Your task to perform on an android device: Open CNN.com Image 0: 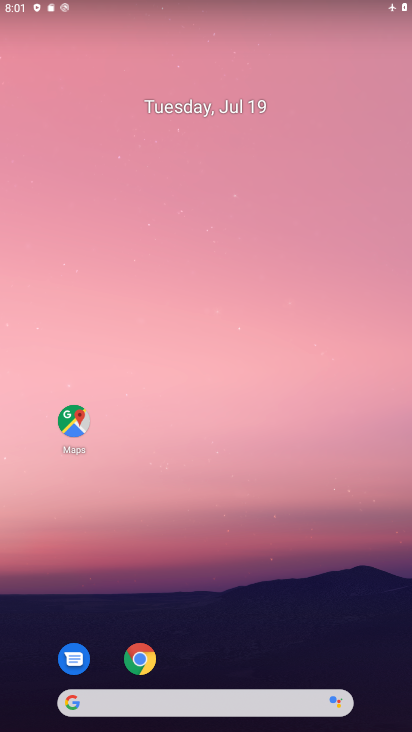
Step 0: click (149, 667)
Your task to perform on an android device: Open CNN.com Image 1: 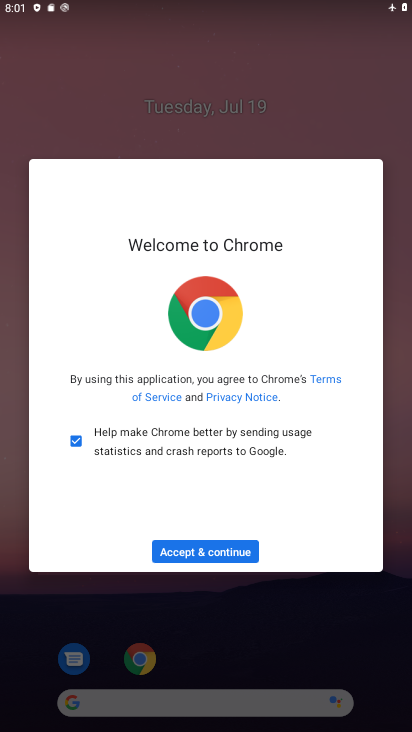
Step 1: click (149, 667)
Your task to perform on an android device: Open CNN.com Image 2: 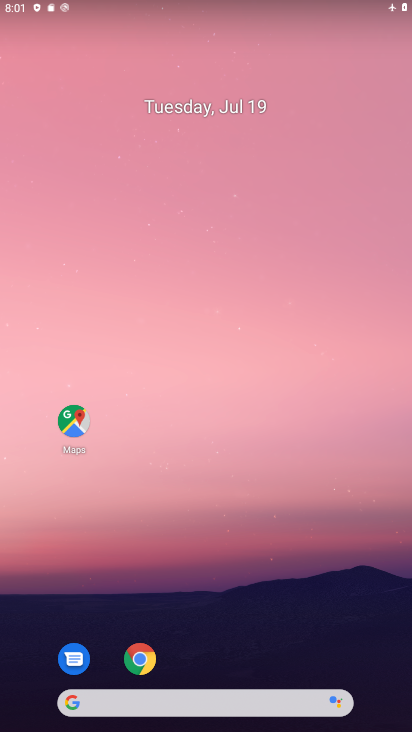
Step 2: click (140, 671)
Your task to perform on an android device: Open CNN.com Image 3: 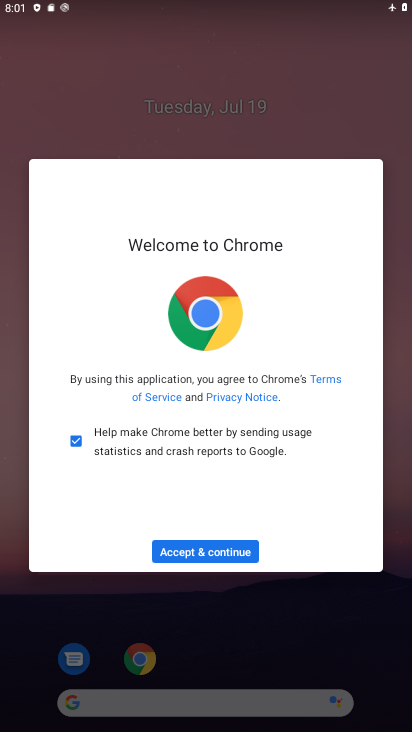
Step 3: click (191, 547)
Your task to perform on an android device: Open CNN.com Image 4: 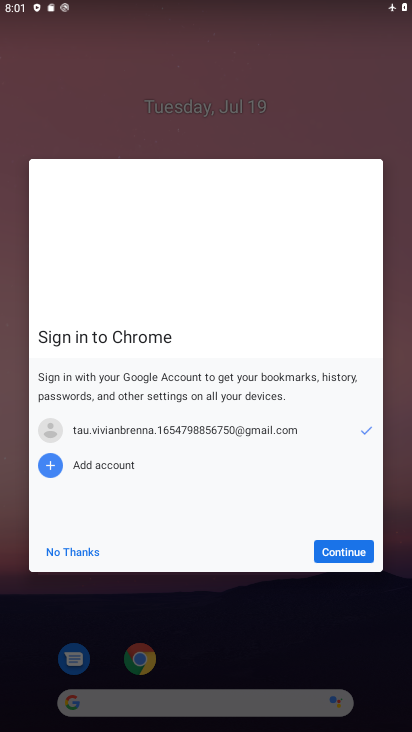
Step 4: click (312, 552)
Your task to perform on an android device: Open CNN.com Image 5: 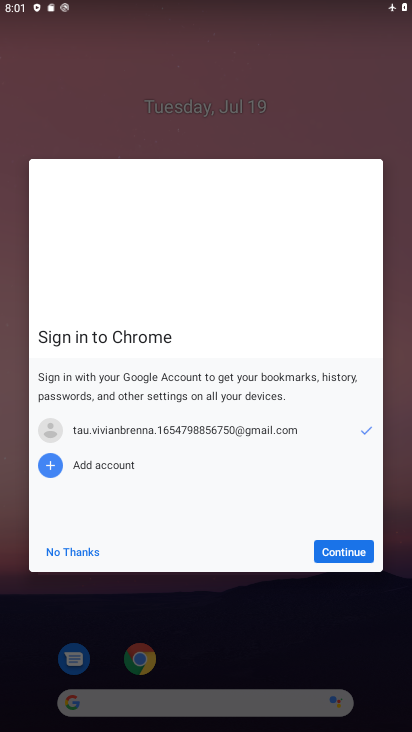
Step 5: click (337, 544)
Your task to perform on an android device: Open CNN.com Image 6: 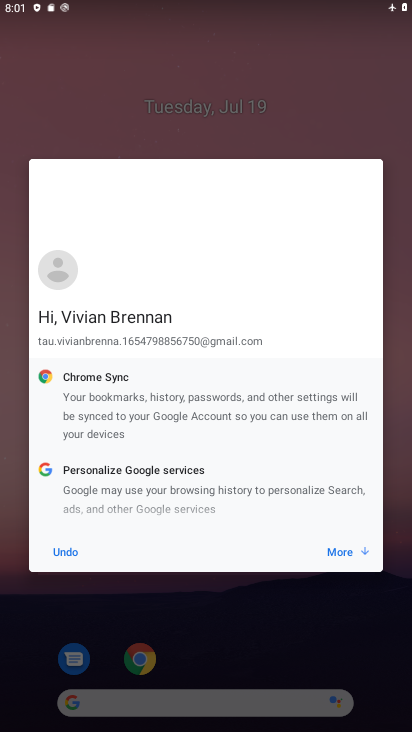
Step 6: click (337, 544)
Your task to perform on an android device: Open CNN.com Image 7: 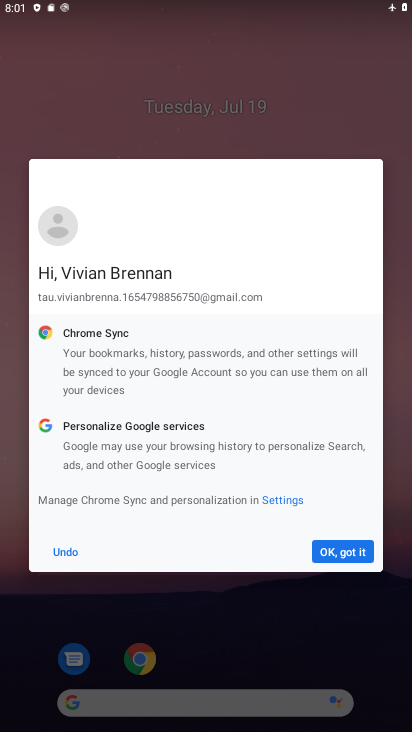
Step 7: click (337, 544)
Your task to perform on an android device: Open CNN.com Image 8: 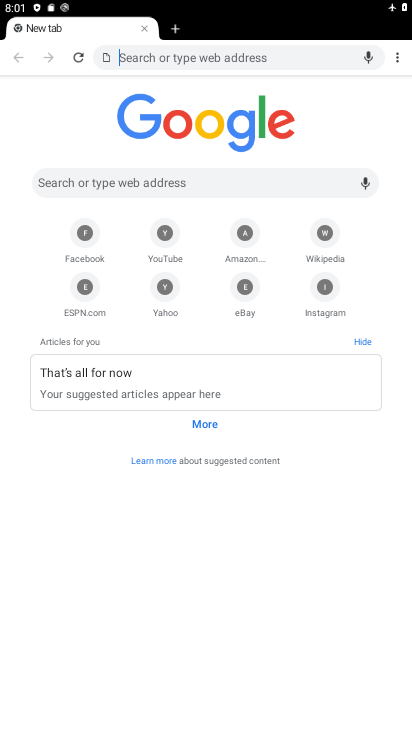
Step 8: click (197, 184)
Your task to perform on an android device: Open CNN.com Image 9: 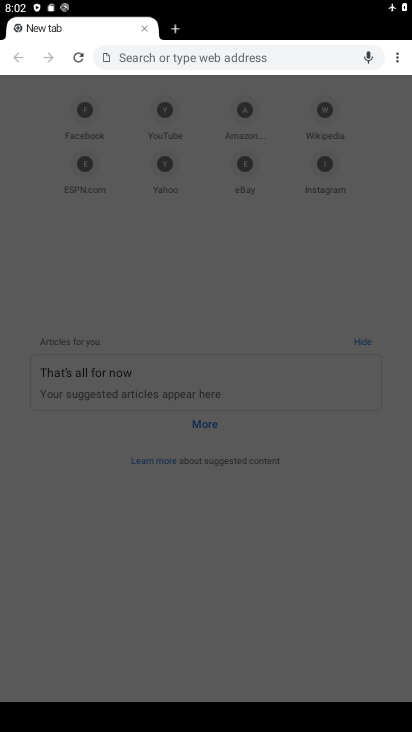
Step 9: type "cnn.com"
Your task to perform on an android device: Open CNN.com Image 10: 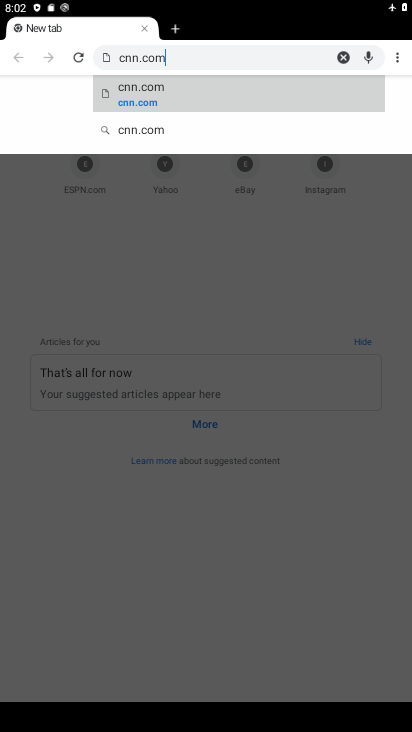
Step 10: click (197, 131)
Your task to perform on an android device: Open CNN.com Image 11: 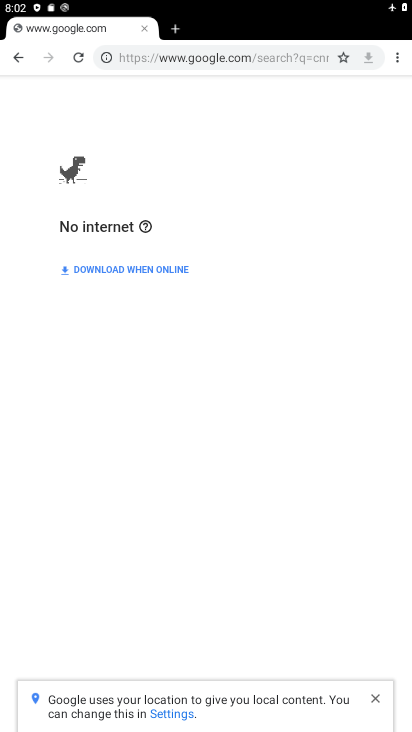
Step 11: drag from (269, 3) to (270, 543)
Your task to perform on an android device: Open CNN.com Image 12: 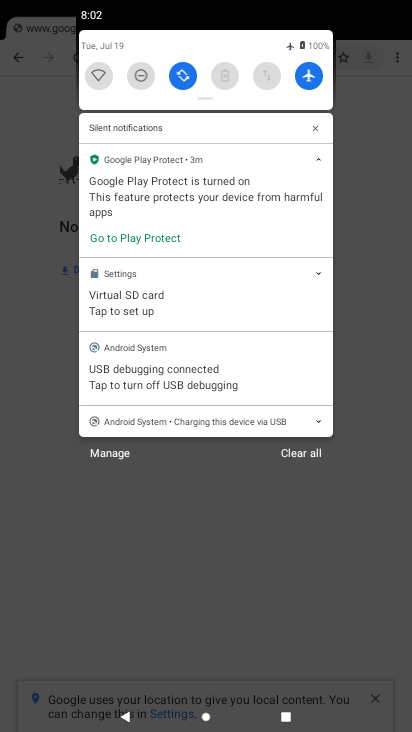
Step 12: click (295, 77)
Your task to perform on an android device: Open CNN.com Image 13: 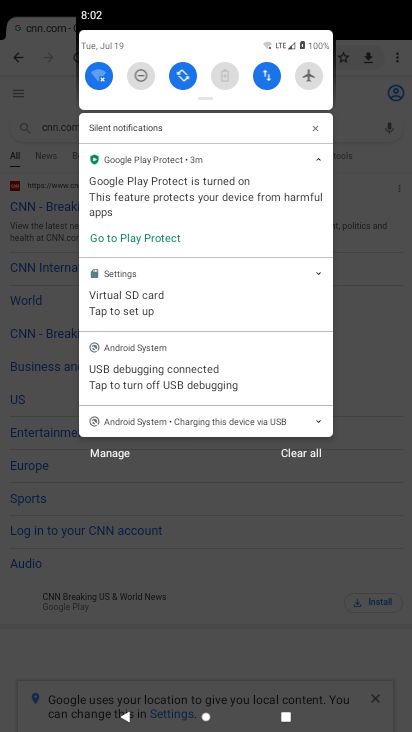
Step 13: task complete